Your task to perform on an android device: open chrome and create a bookmark for the current page Image 0: 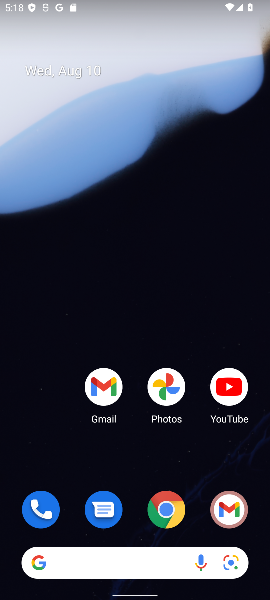
Step 0: drag from (144, 466) to (190, 53)
Your task to perform on an android device: open chrome and create a bookmark for the current page Image 1: 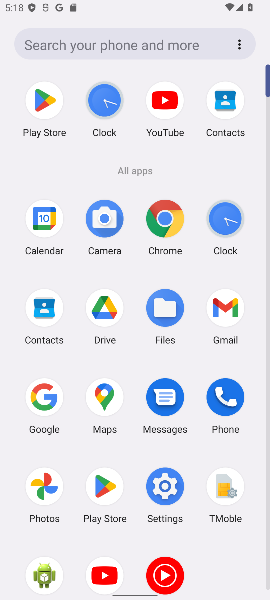
Step 1: click (167, 211)
Your task to perform on an android device: open chrome and create a bookmark for the current page Image 2: 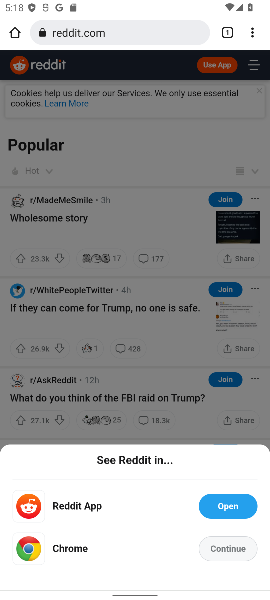
Step 2: click (254, 26)
Your task to perform on an android device: open chrome and create a bookmark for the current page Image 3: 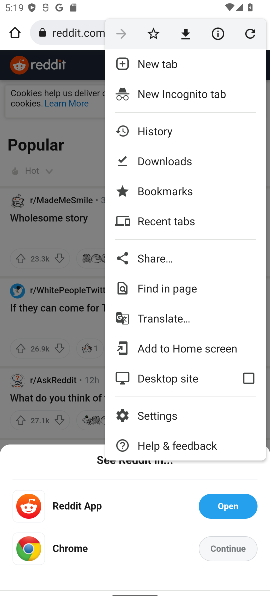
Step 3: click (154, 30)
Your task to perform on an android device: open chrome and create a bookmark for the current page Image 4: 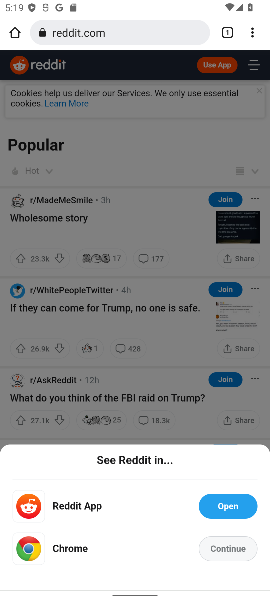
Step 4: task complete